Your task to perform on an android device: Clear all items from cart on newegg.com. Search for logitech g502 on newegg.com, select the first entry, add it to the cart, then select checkout. Image 0: 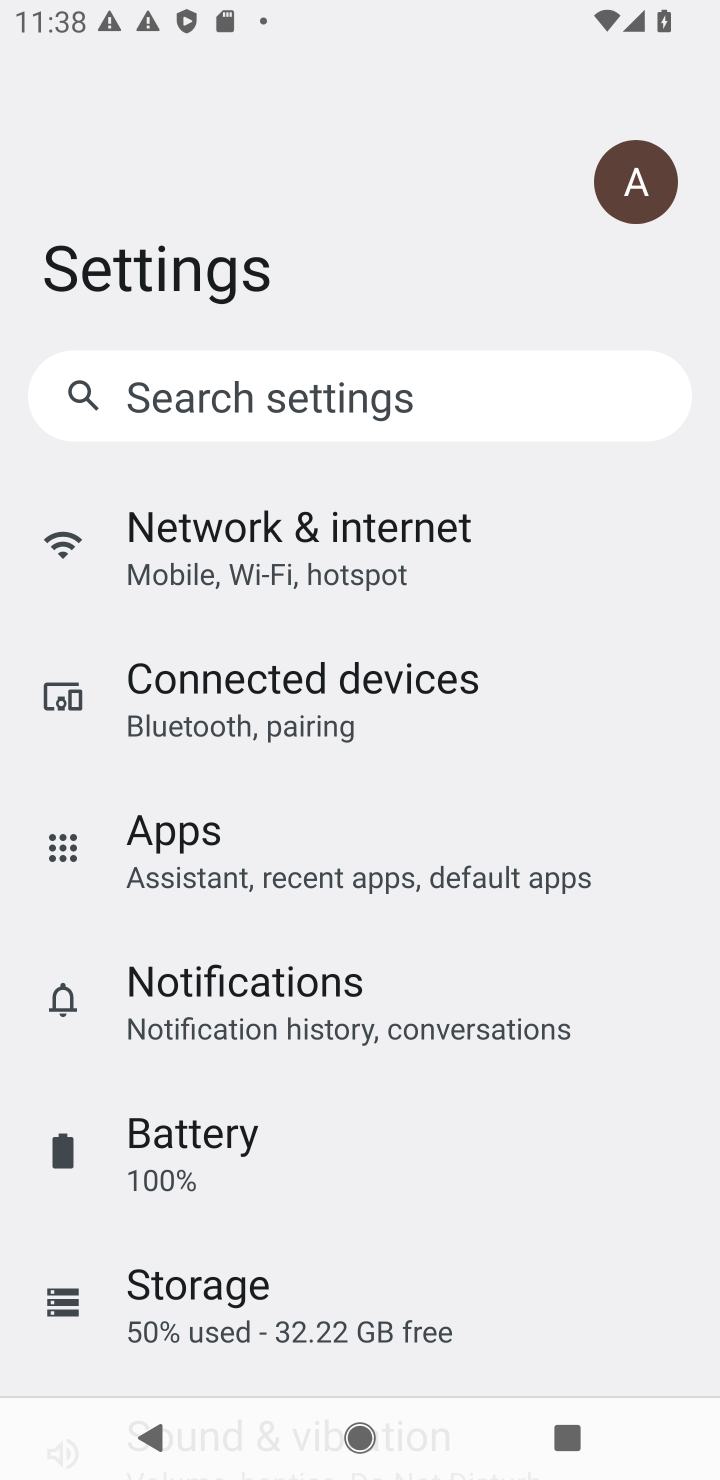
Step 0: press home button
Your task to perform on an android device: Clear all items from cart on newegg.com. Search for logitech g502 on newegg.com, select the first entry, add it to the cart, then select checkout. Image 1: 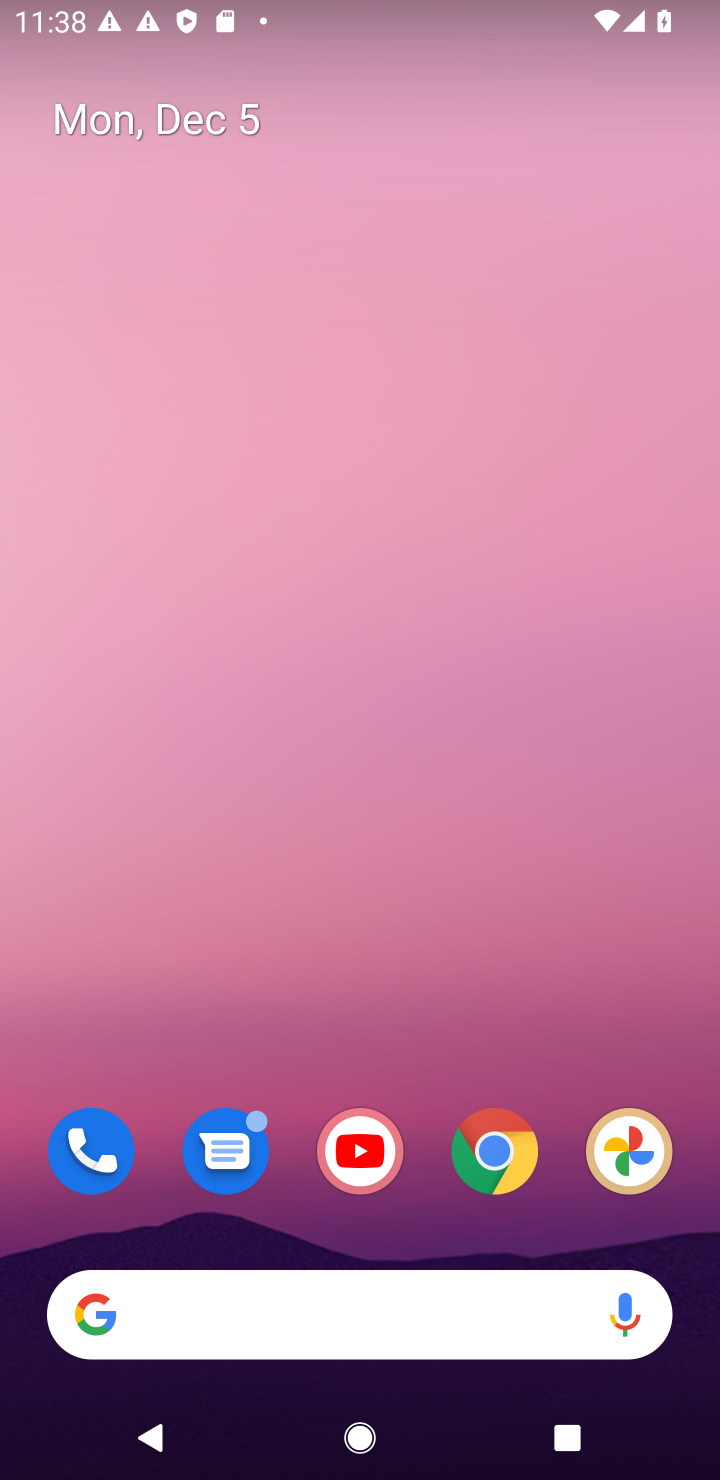
Step 1: click (486, 1162)
Your task to perform on an android device: Clear all items from cart on newegg.com. Search for logitech g502 on newegg.com, select the first entry, add it to the cart, then select checkout. Image 2: 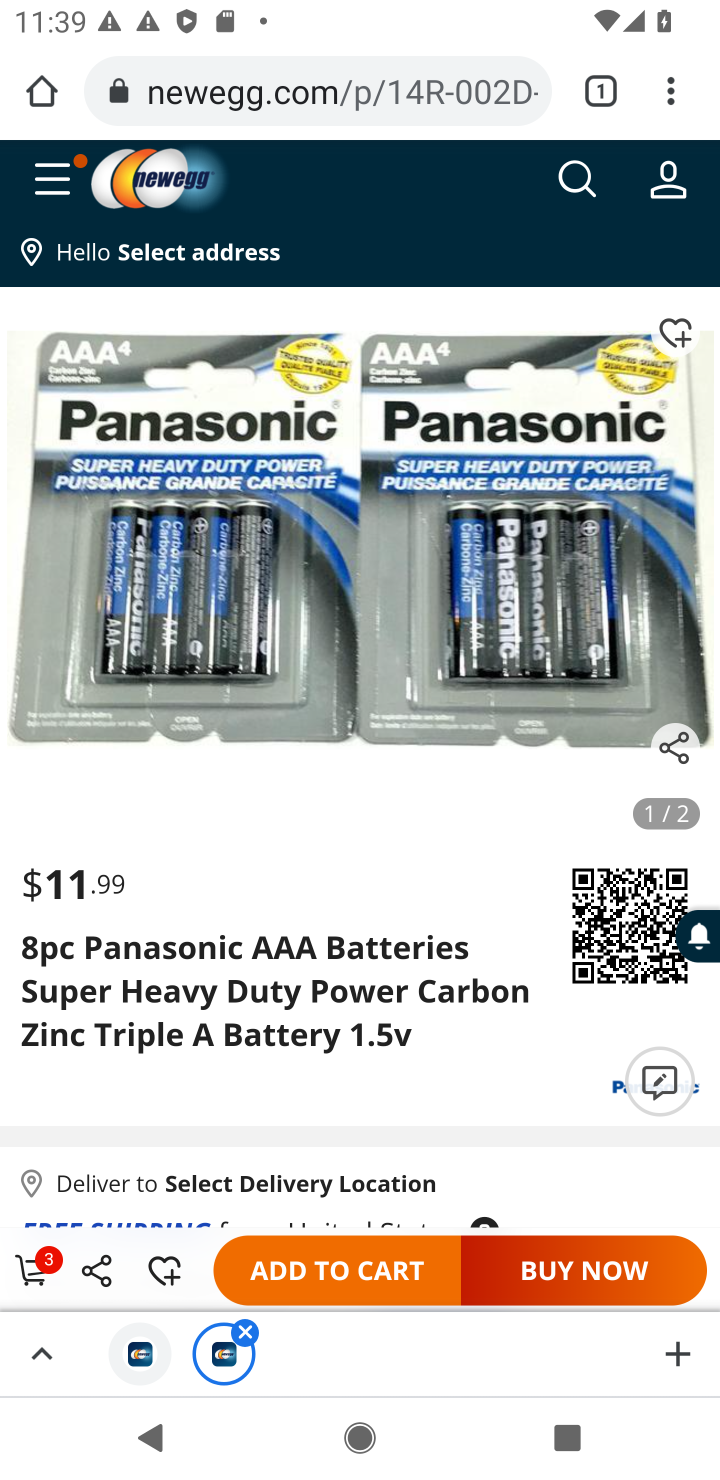
Step 2: click (33, 1272)
Your task to perform on an android device: Clear all items from cart on newegg.com. Search for logitech g502 on newegg.com, select the first entry, add it to the cart, then select checkout. Image 3: 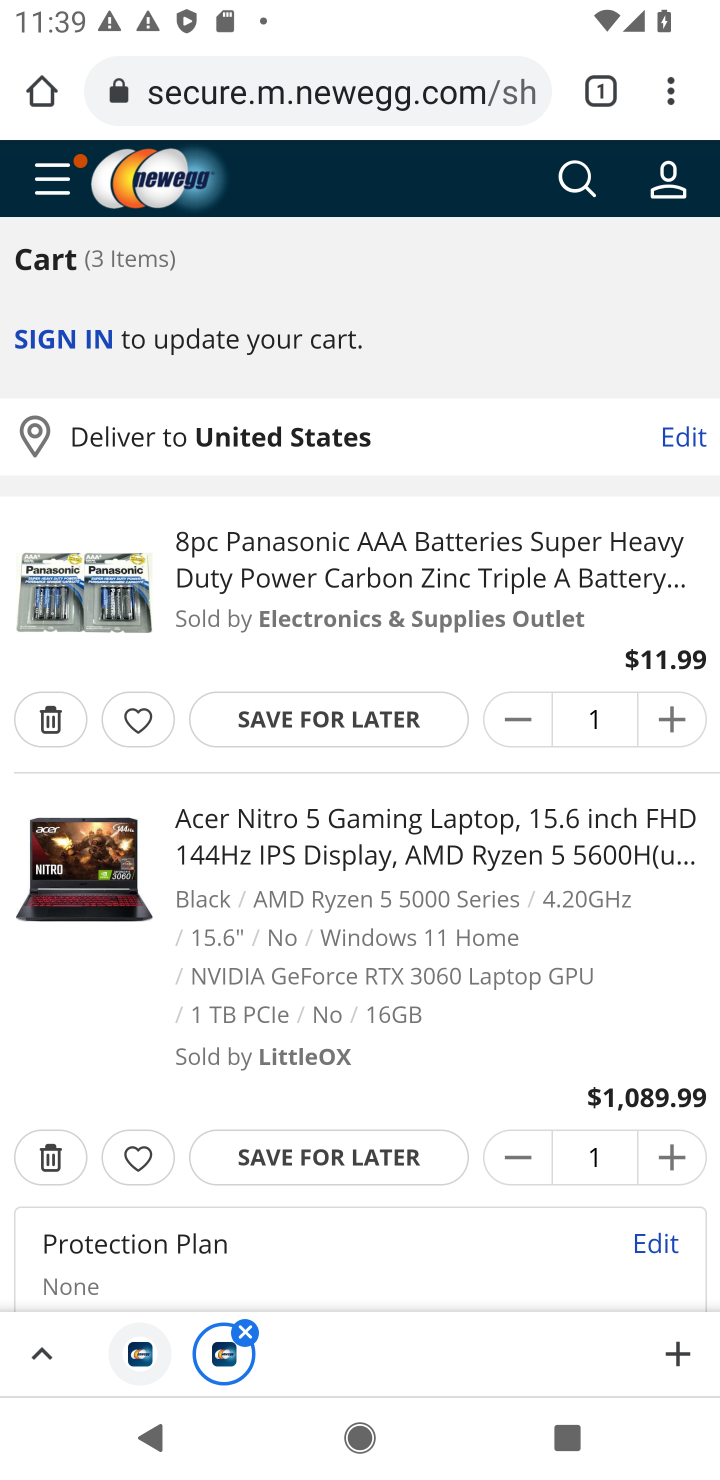
Step 3: click (60, 730)
Your task to perform on an android device: Clear all items from cart on newegg.com. Search for logitech g502 on newegg.com, select the first entry, add it to the cart, then select checkout. Image 4: 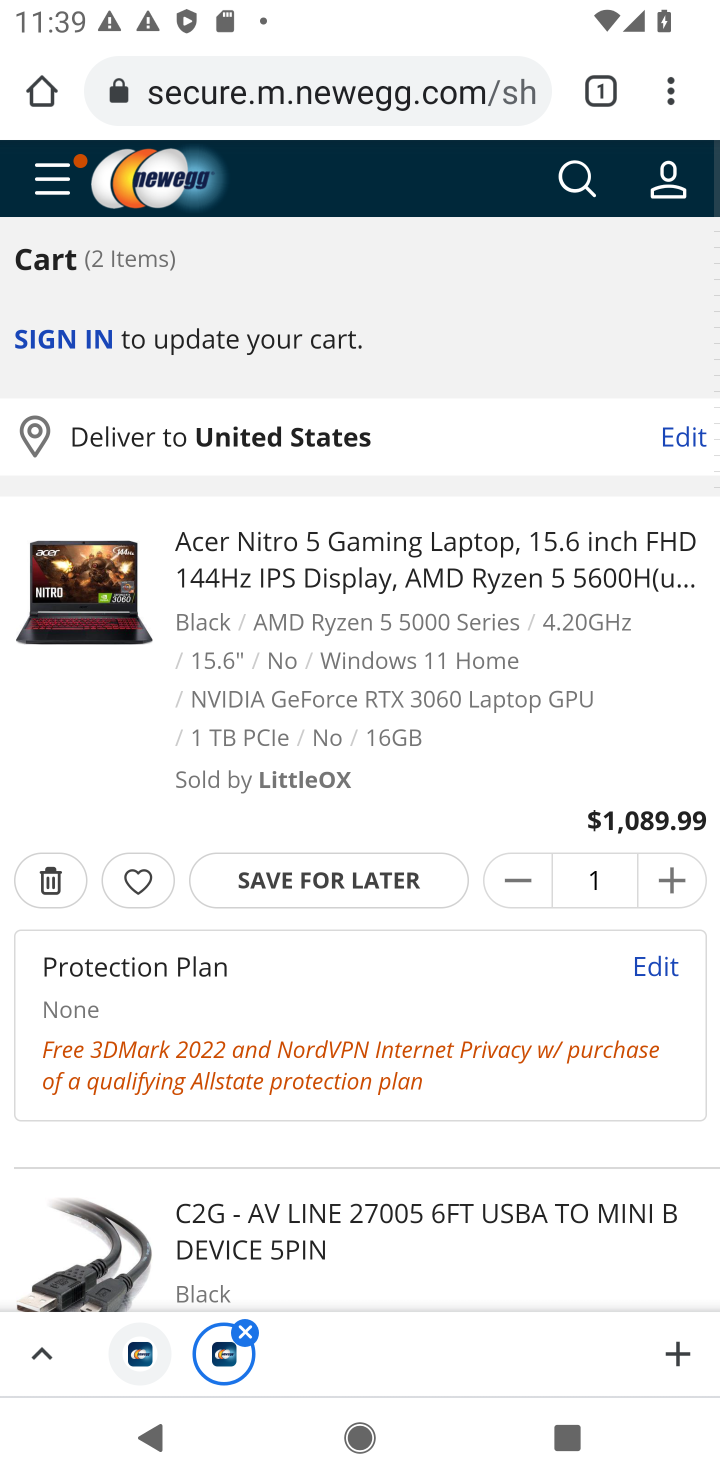
Step 4: click (60, 886)
Your task to perform on an android device: Clear all items from cart on newegg.com. Search for logitech g502 on newegg.com, select the first entry, add it to the cart, then select checkout. Image 5: 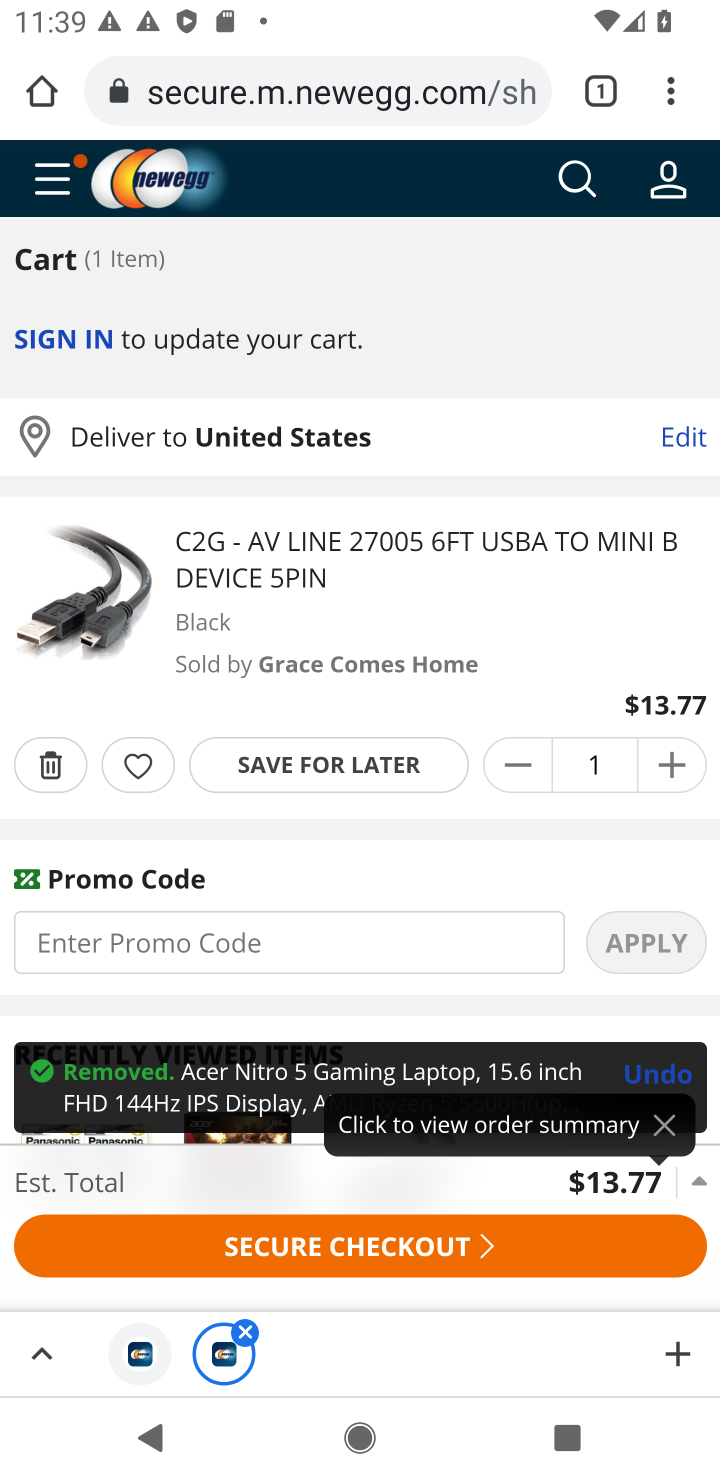
Step 5: click (49, 771)
Your task to perform on an android device: Clear all items from cart on newegg.com. Search for logitech g502 on newegg.com, select the first entry, add it to the cart, then select checkout. Image 6: 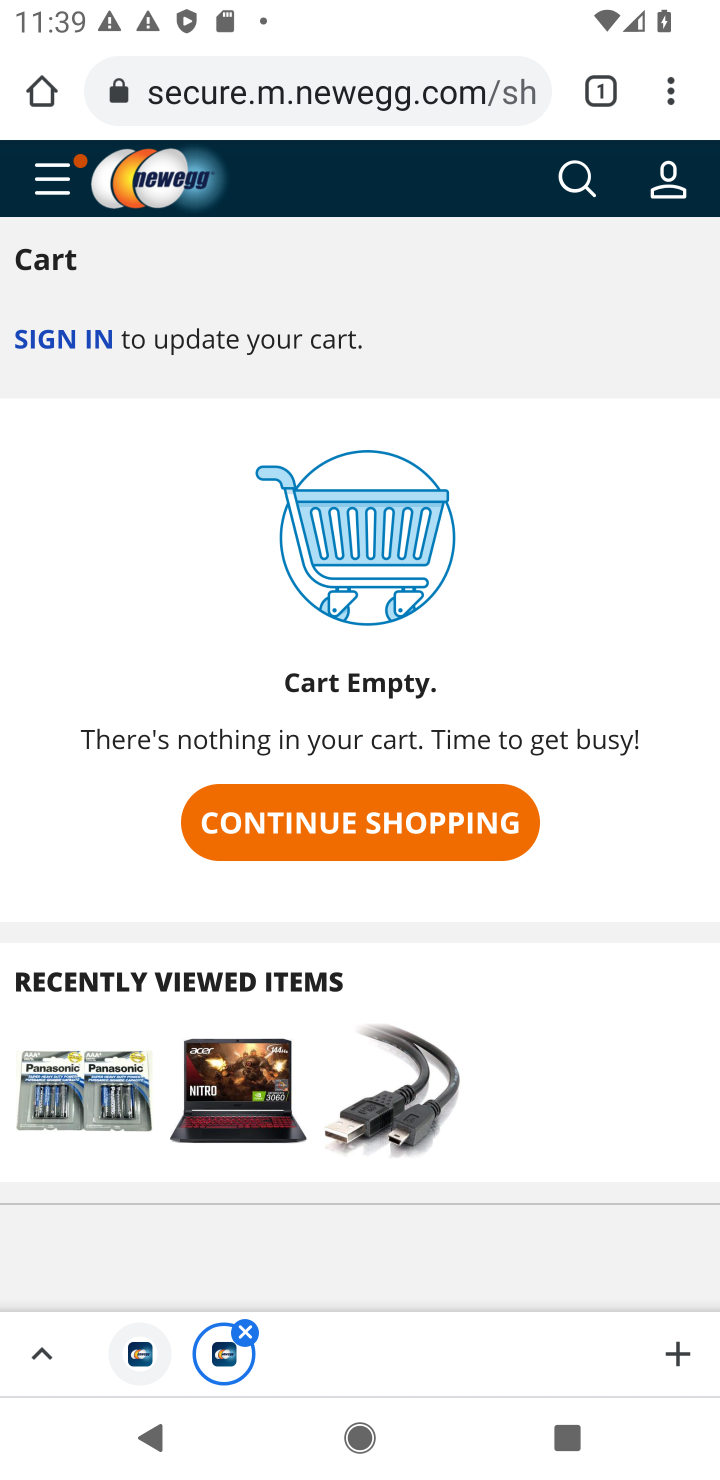
Step 6: click (575, 179)
Your task to perform on an android device: Clear all items from cart on newegg.com. Search for logitech g502 on newegg.com, select the first entry, add it to the cart, then select checkout. Image 7: 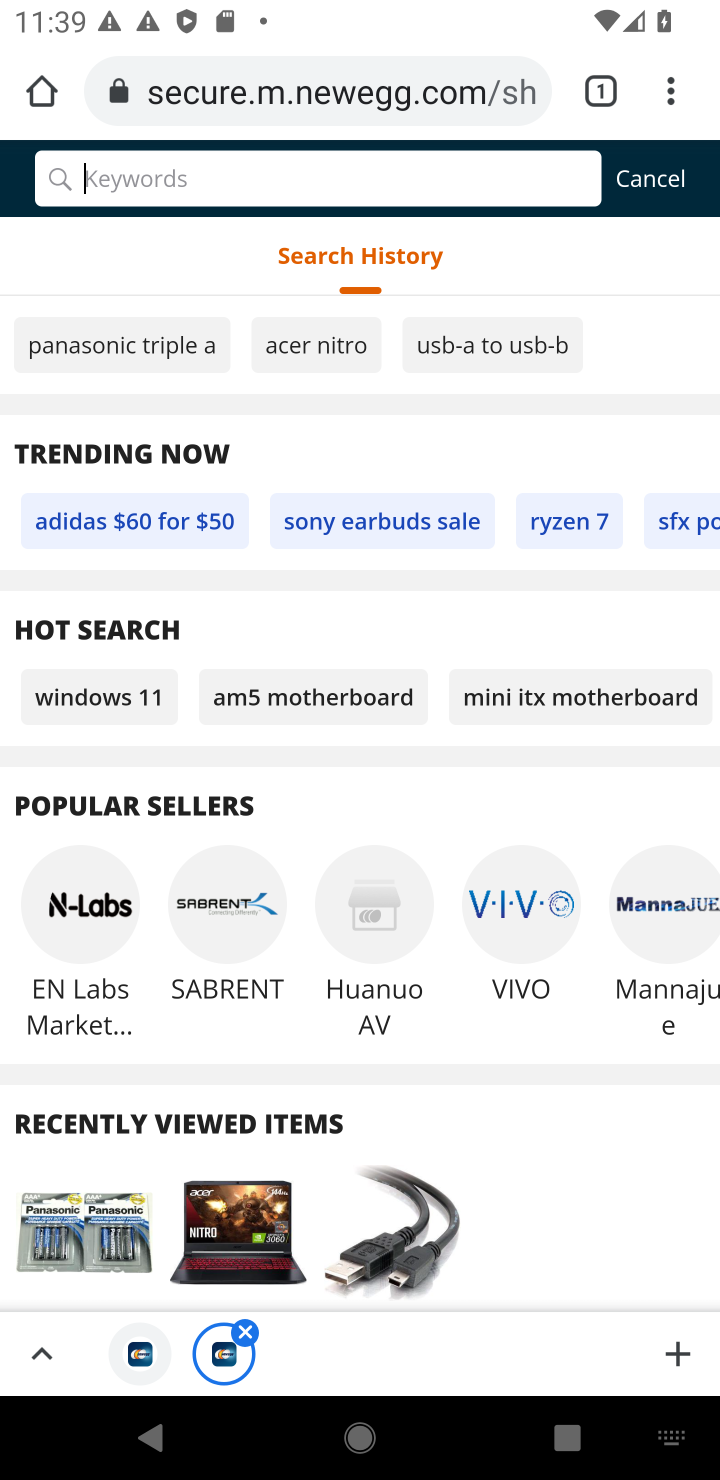
Step 7: type "logitech g502"
Your task to perform on an android device: Clear all items from cart on newegg.com. Search for logitech g502 on newegg.com, select the first entry, add it to the cart, then select checkout. Image 8: 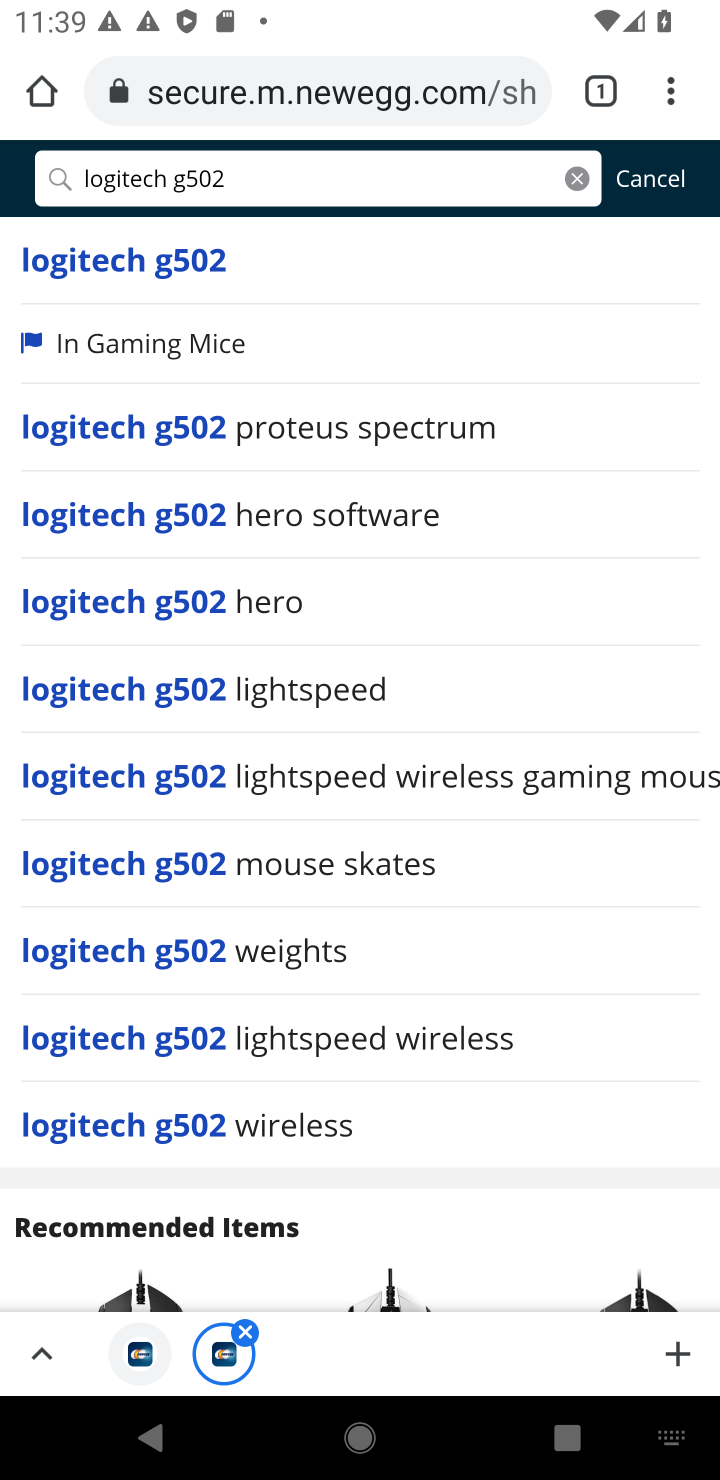
Step 8: click (122, 275)
Your task to perform on an android device: Clear all items from cart on newegg.com. Search for logitech g502 on newegg.com, select the first entry, add it to the cart, then select checkout. Image 9: 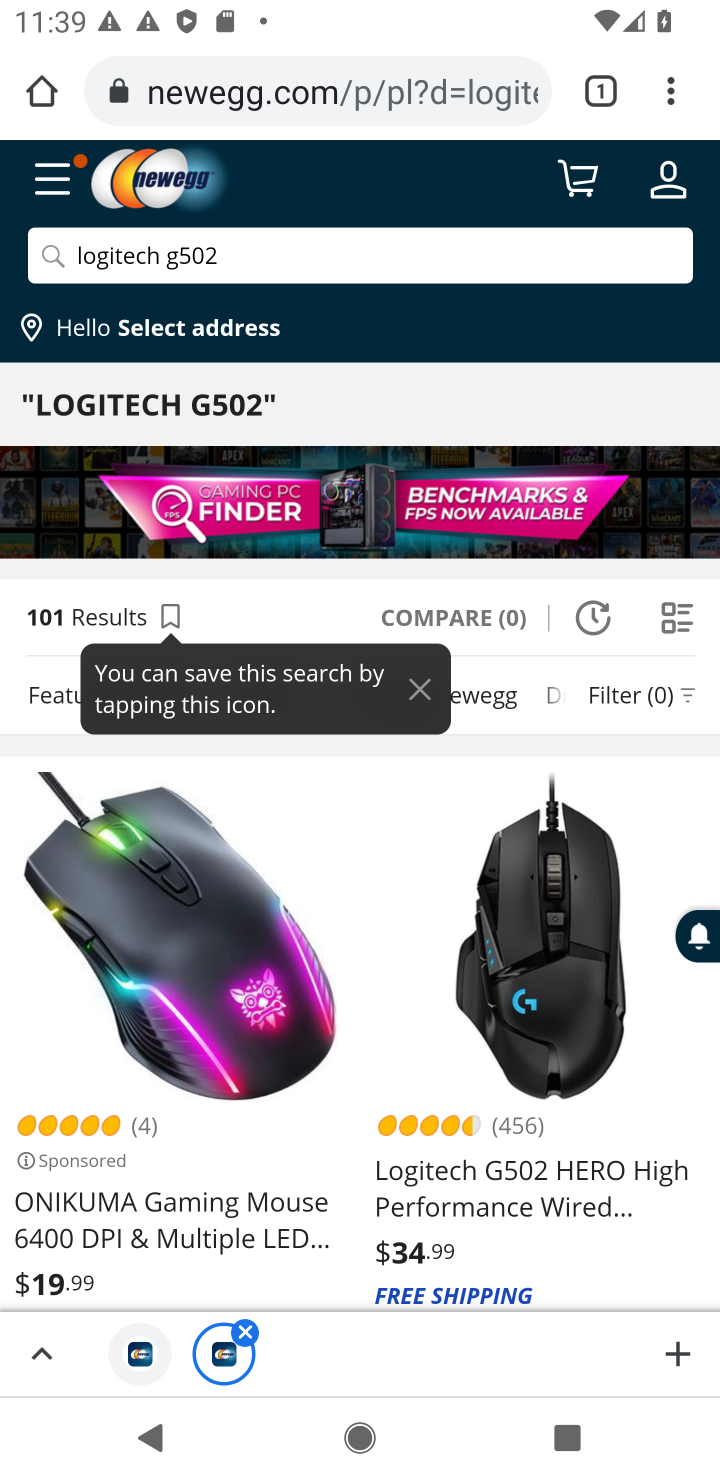
Step 9: task complete